Your task to perform on an android device: Go to Wikipedia Image 0: 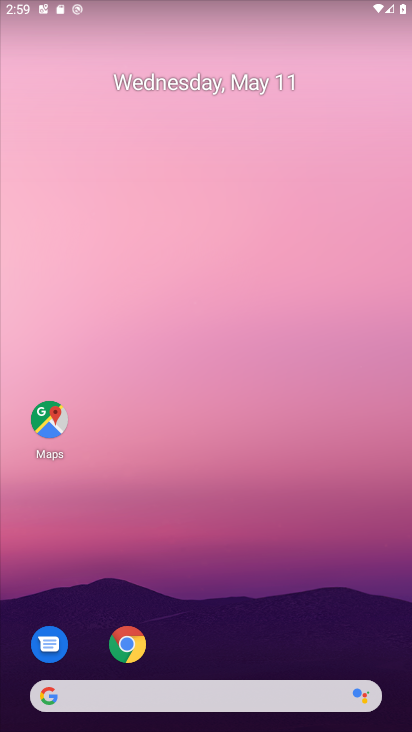
Step 0: click (119, 650)
Your task to perform on an android device: Go to Wikipedia Image 1: 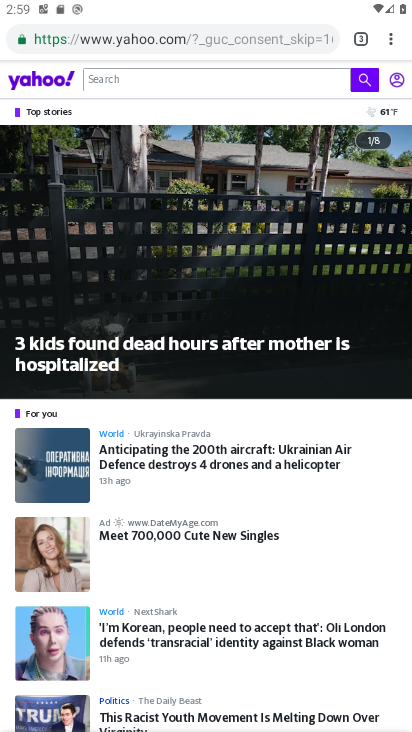
Step 1: click (353, 32)
Your task to perform on an android device: Go to Wikipedia Image 2: 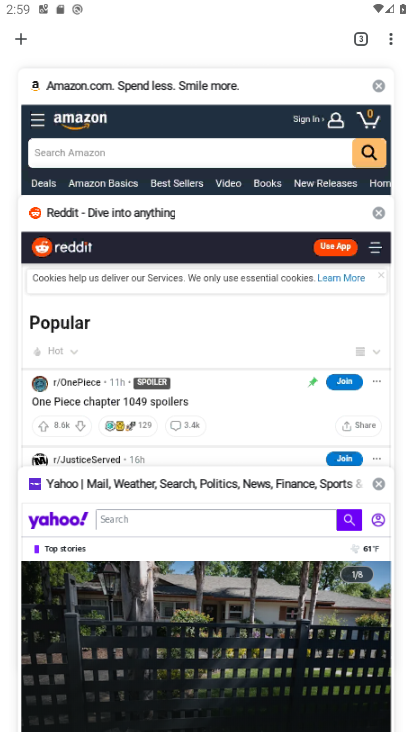
Step 2: click (12, 37)
Your task to perform on an android device: Go to Wikipedia Image 3: 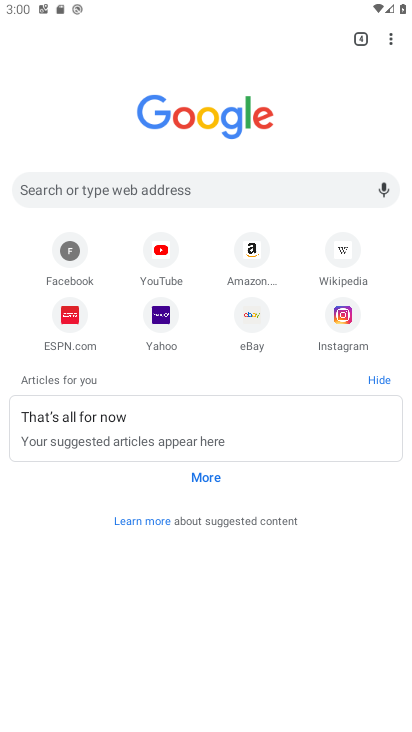
Step 3: click (338, 250)
Your task to perform on an android device: Go to Wikipedia Image 4: 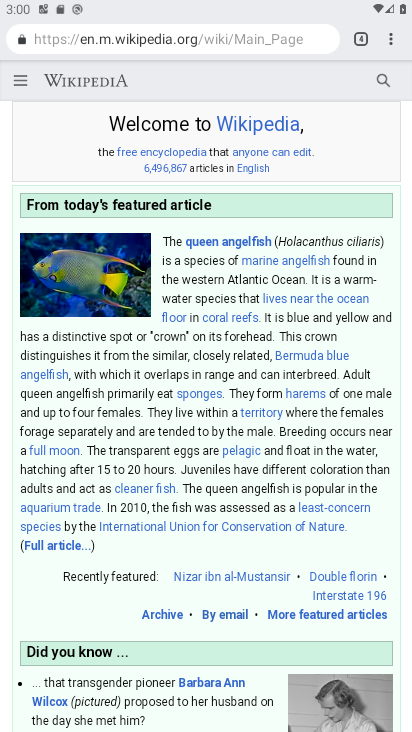
Step 4: task complete